Your task to perform on an android device: Go to Maps Image 0: 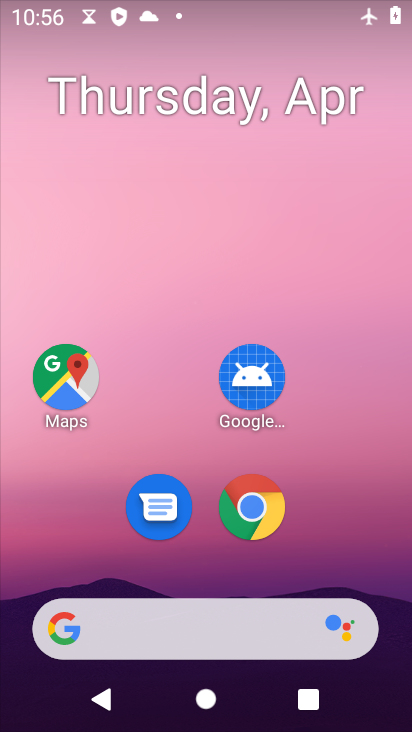
Step 0: click (64, 390)
Your task to perform on an android device: Go to Maps Image 1: 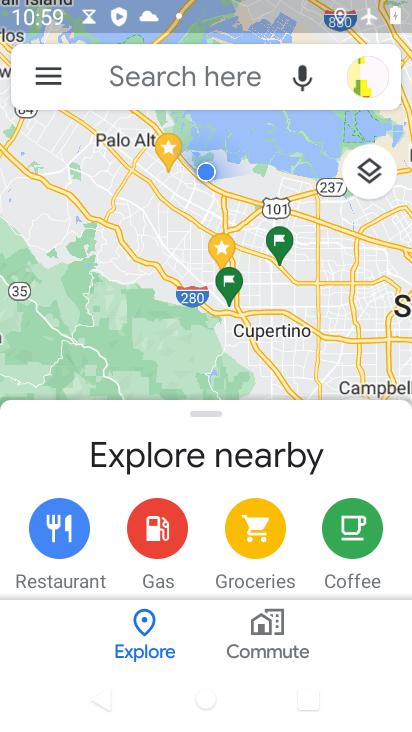
Step 1: task complete